Your task to perform on an android device: Go to display settings Image 0: 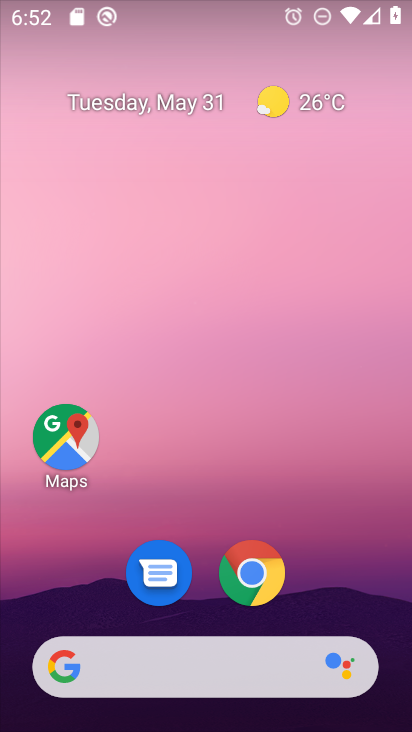
Step 0: drag from (399, 641) to (299, 114)
Your task to perform on an android device: Go to display settings Image 1: 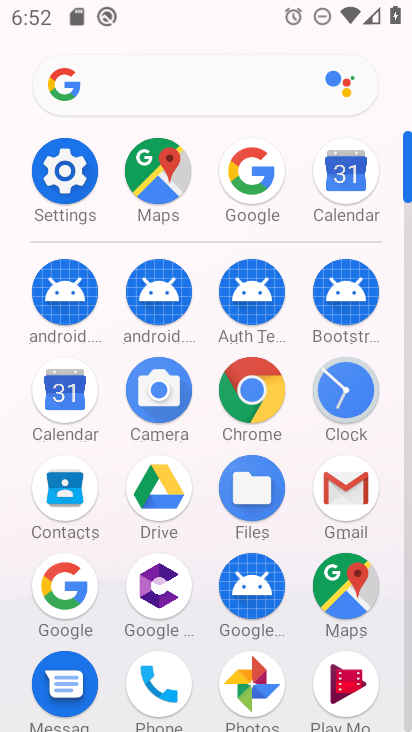
Step 1: click (74, 186)
Your task to perform on an android device: Go to display settings Image 2: 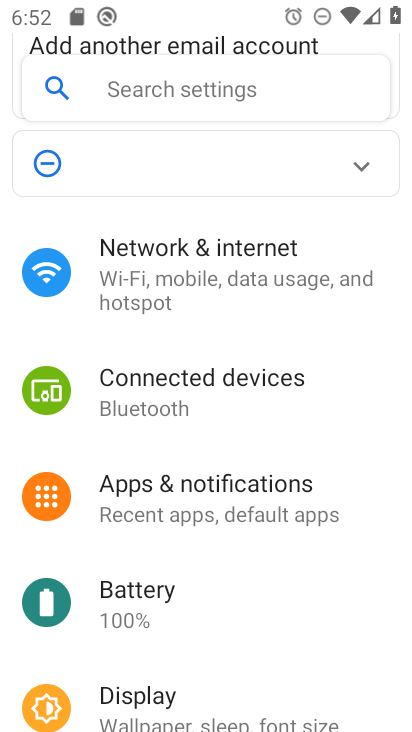
Step 2: click (180, 697)
Your task to perform on an android device: Go to display settings Image 3: 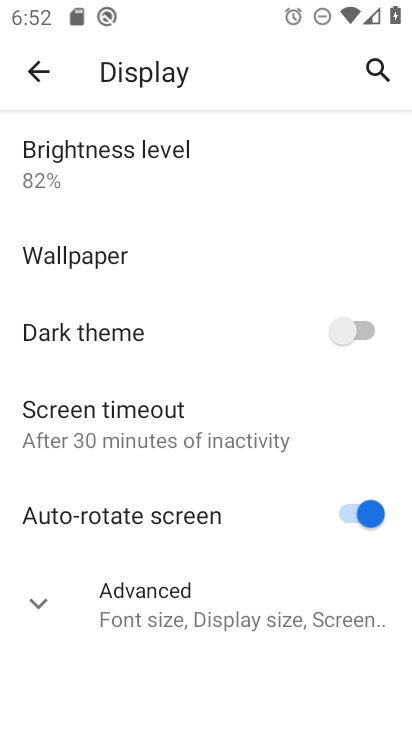
Step 3: task complete